Your task to perform on an android device: add a contact Image 0: 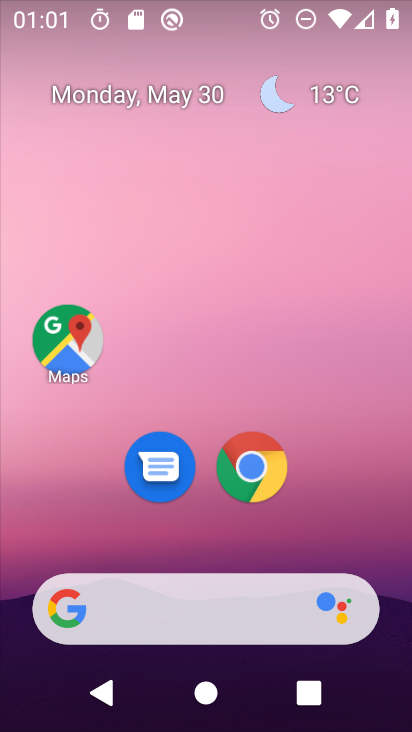
Step 0: click (211, 275)
Your task to perform on an android device: add a contact Image 1: 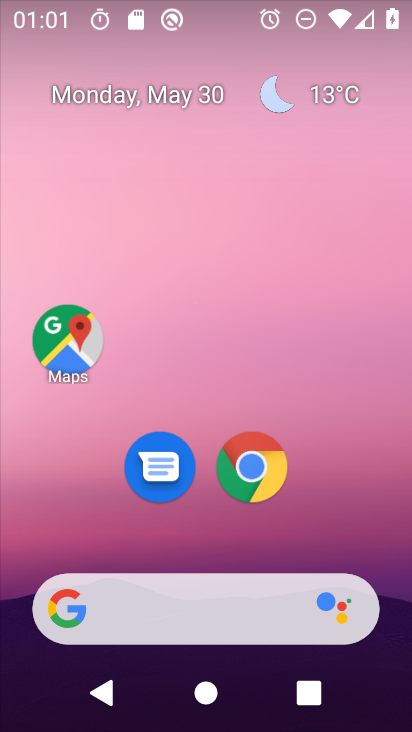
Step 1: drag from (190, 545) to (185, 131)
Your task to perform on an android device: add a contact Image 2: 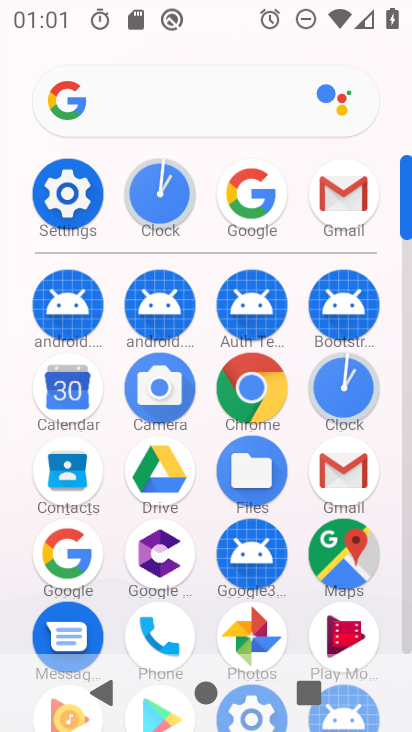
Step 2: click (75, 479)
Your task to perform on an android device: add a contact Image 3: 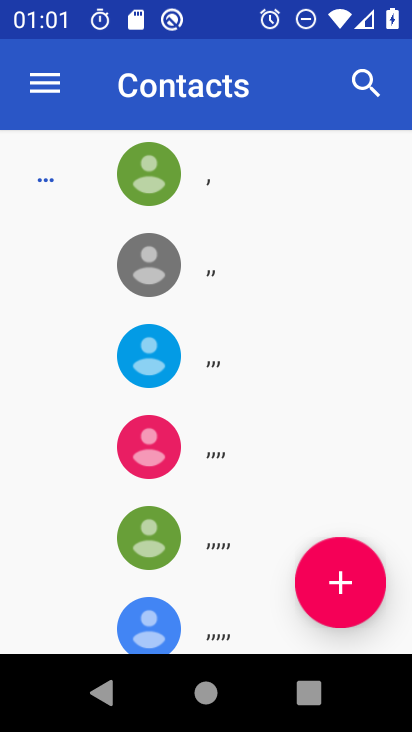
Step 3: click (324, 574)
Your task to perform on an android device: add a contact Image 4: 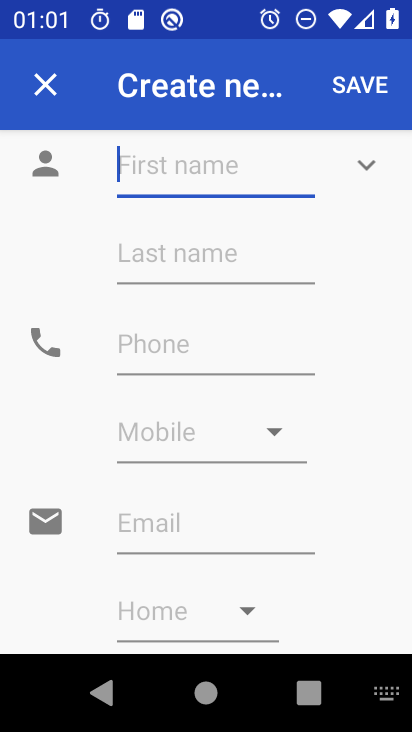
Step 4: click (187, 185)
Your task to perform on an android device: add a contact Image 5: 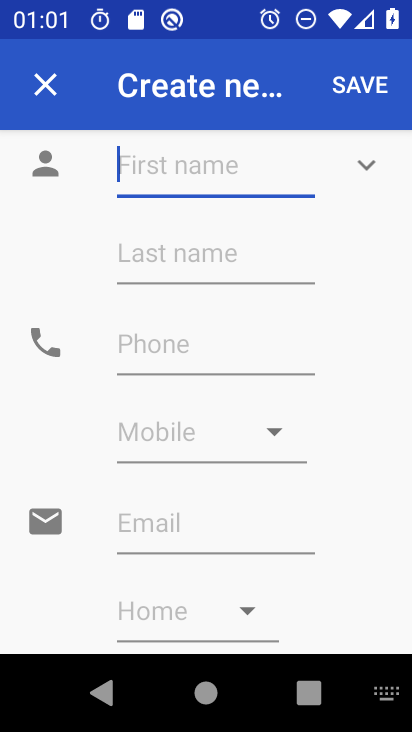
Step 5: type "hfhdf"
Your task to perform on an android device: add a contact Image 6: 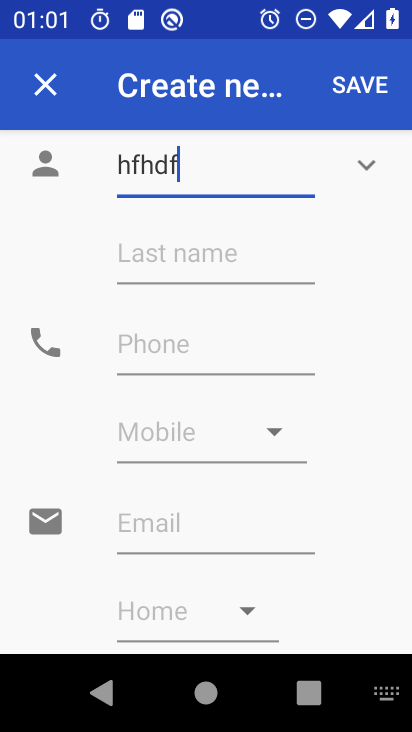
Step 6: click (234, 347)
Your task to perform on an android device: add a contact Image 7: 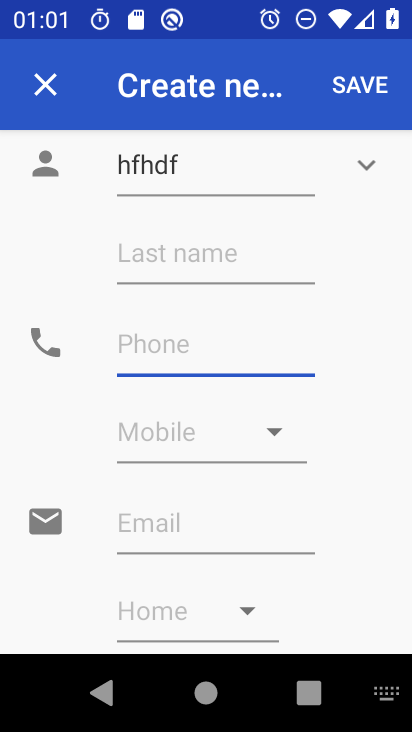
Step 7: type "96786576"
Your task to perform on an android device: add a contact Image 8: 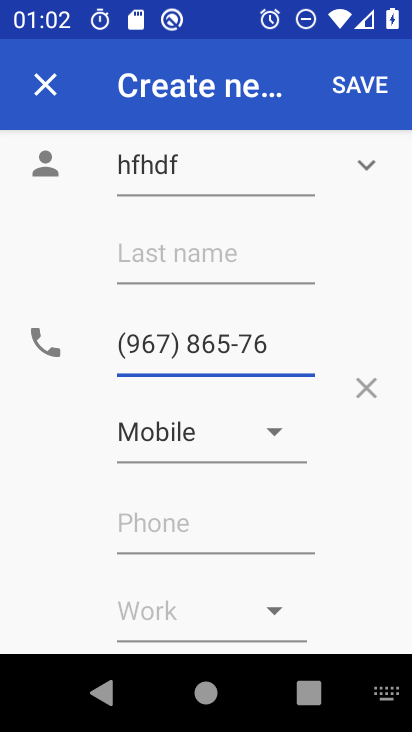
Step 8: click (357, 88)
Your task to perform on an android device: add a contact Image 9: 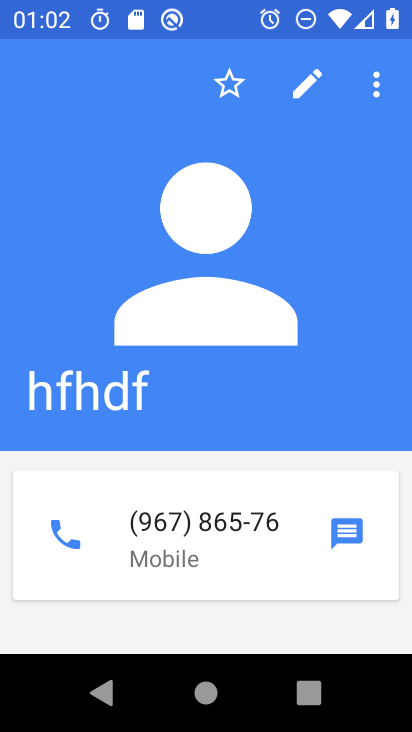
Step 9: task complete